Your task to perform on an android device: What's the weather going to be this weekend? Image 0: 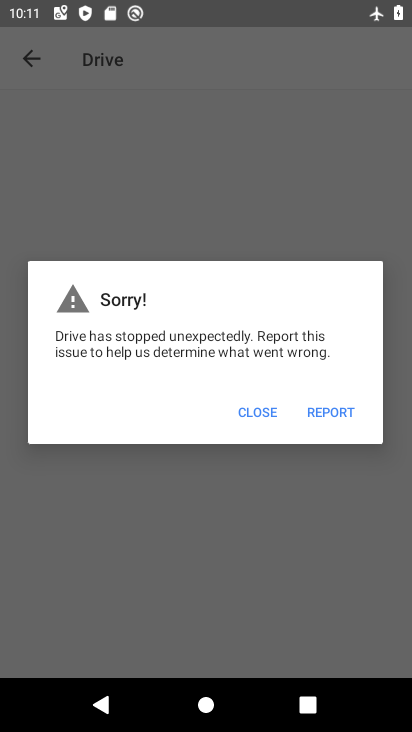
Step 0: press home button
Your task to perform on an android device: What's the weather going to be this weekend? Image 1: 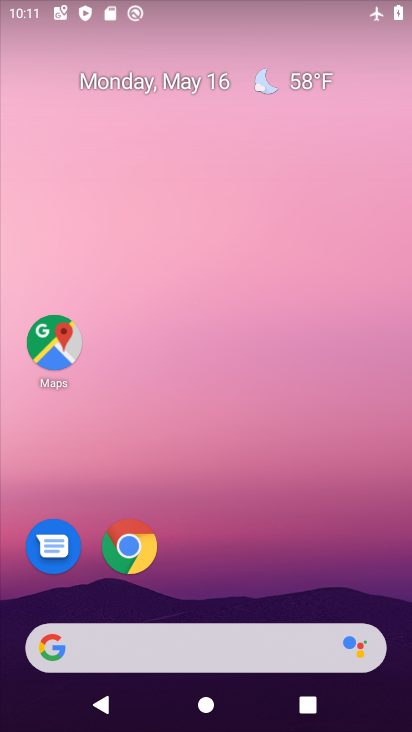
Step 1: drag from (231, 538) to (196, 140)
Your task to perform on an android device: What's the weather going to be this weekend? Image 2: 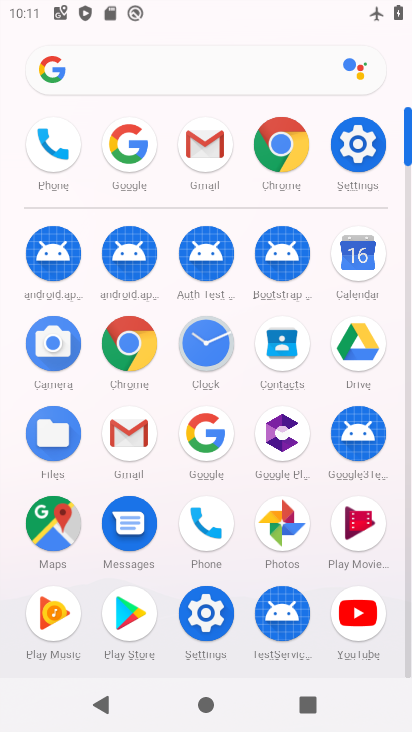
Step 2: click (201, 435)
Your task to perform on an android device: What's the weather going to be this weekend? Image 3: 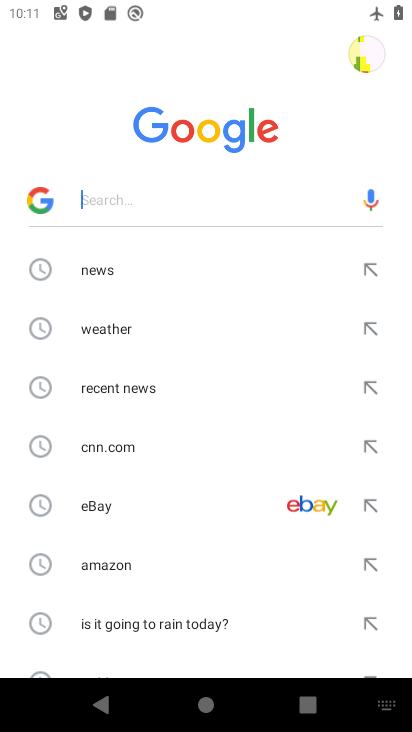
Step 3: type "What's the weather going to be this weekend?"
Your task to perform on an android device: What's the weather going to be this weekend? Image 4: 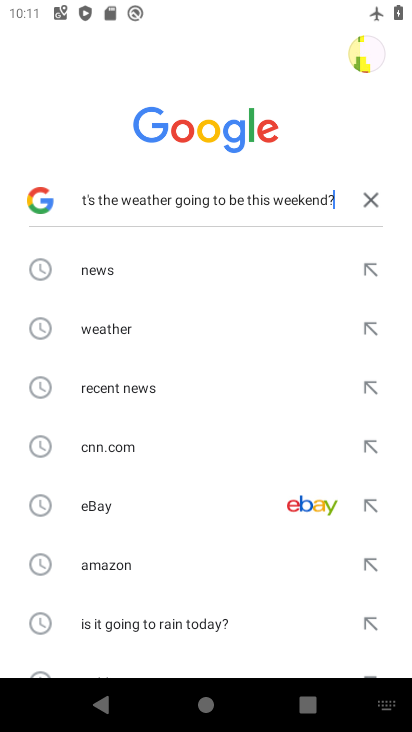
Step 4: type ""
Your task to perform on an android device: What's the weather going to be this weekend? Image 5: 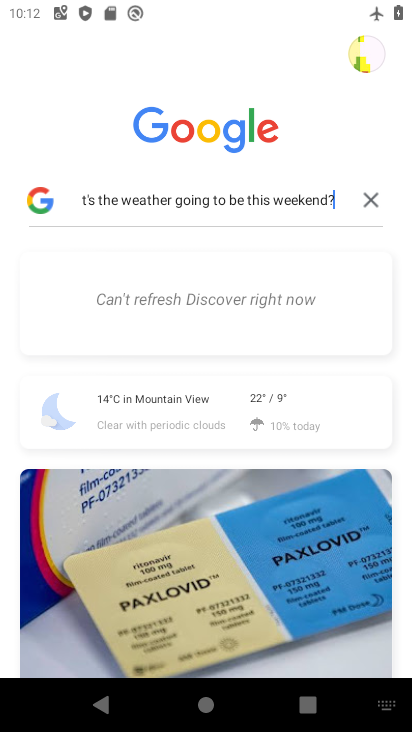
Step 5: task complete